Your task to perform on an android device: open a bookmark in the chrome app Image 0: 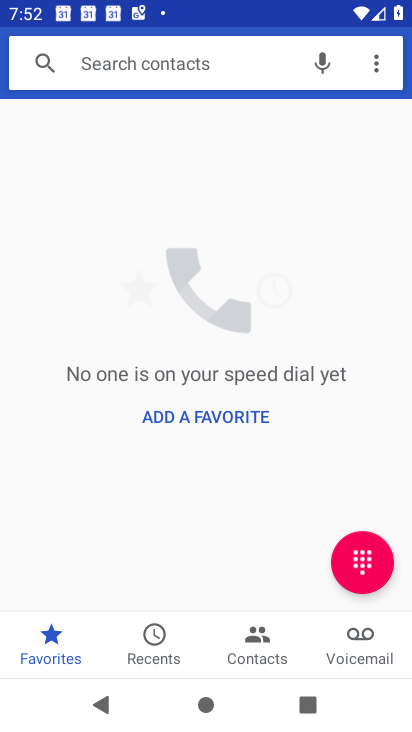
Step 0: press home button
Your task to perform on an android device: open a bookmark in the chrome app Image 1: 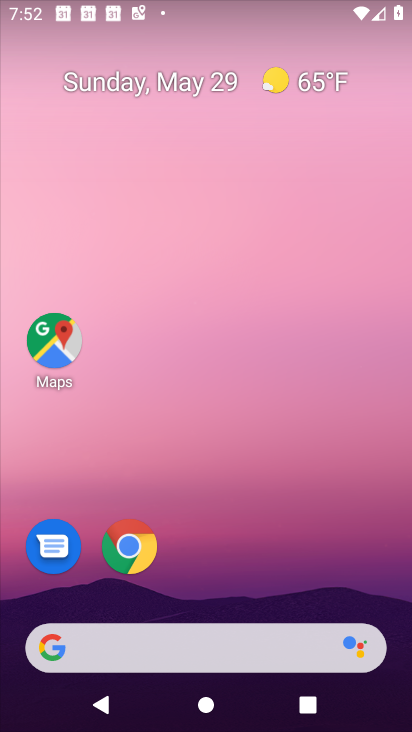
Step 1: drag from (249, 242) to (268, 124)
Your task to perform on an android device: open a bookmark in the chrome app Image 2: 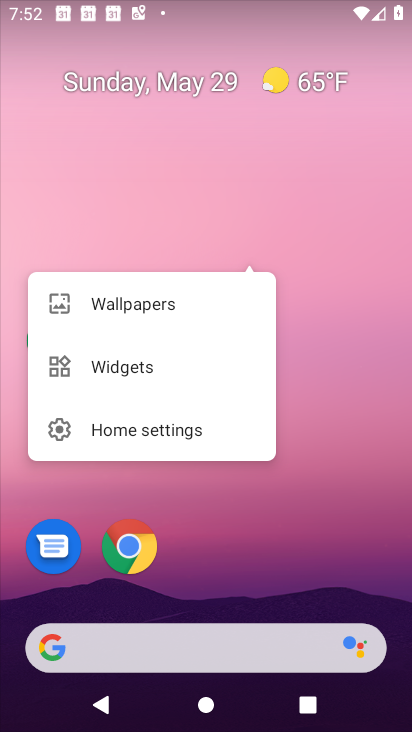
Step 2: click (122, 557)
Your task to perform on an android device: open a bookmark in the chrome app Image 3: 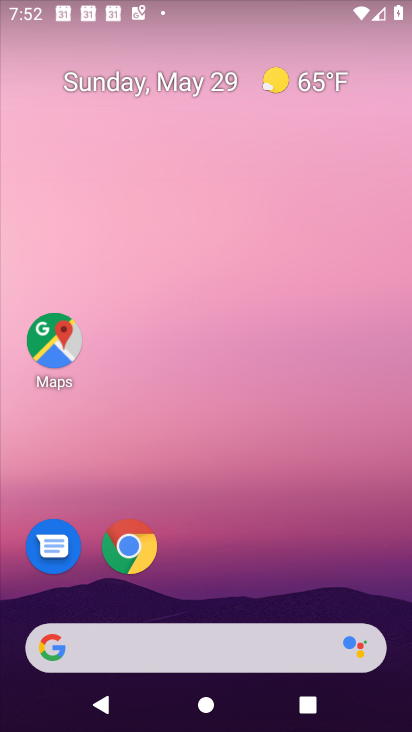
Step 3: click (125, 546)
Your task to perform on an android device: open a bookmark in the chrome app Image 4: 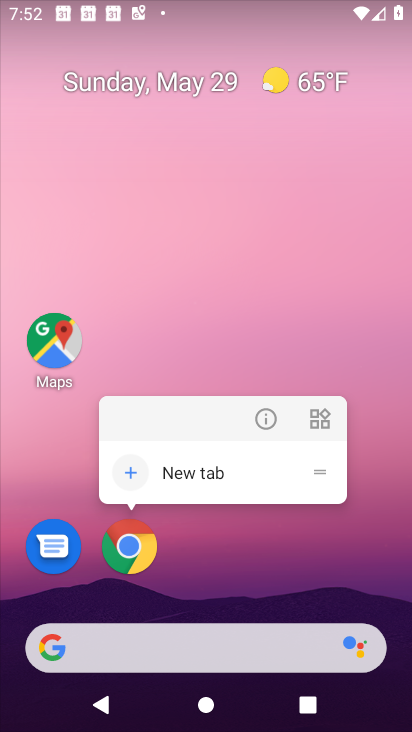
Step 4: click (138, 552)
Your task to perform on an android device: open a bookmark in the chrome app Image 5: 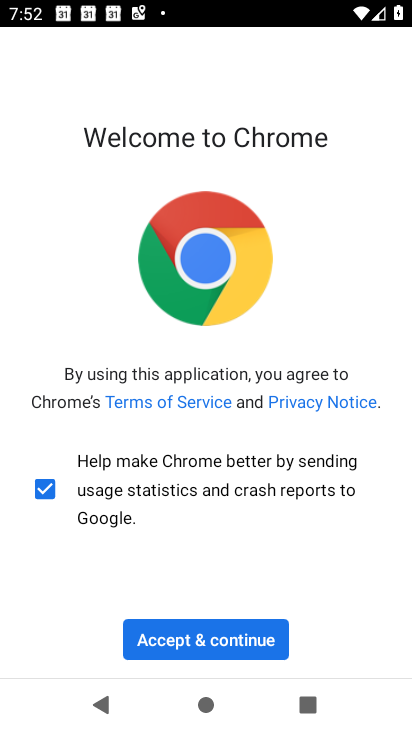
Step 5: click (221, 650)
Your task to perform on an android device: open a bookmark in the chrome app Image 6: 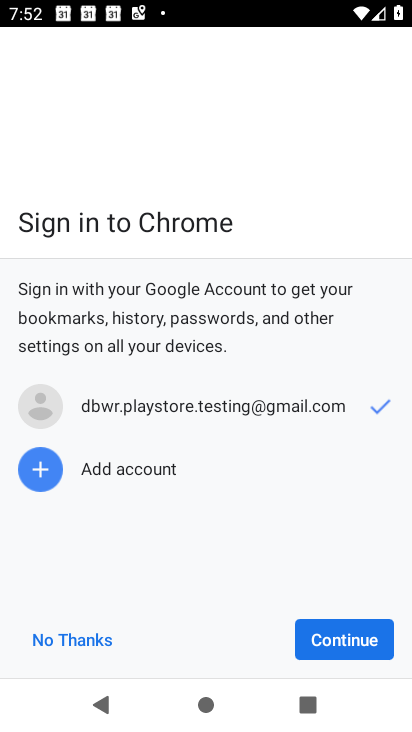
Step 6: click (330, 647)
Your task to perform on an android device: open a bookmark in the chrome app Image 7: 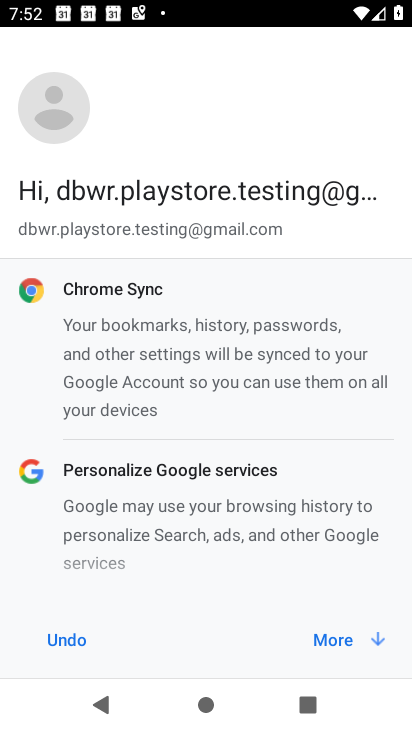
Step 7: click (330, 644)
Your task to perform on an android device: open a bookmark in the chrome app Image 8: 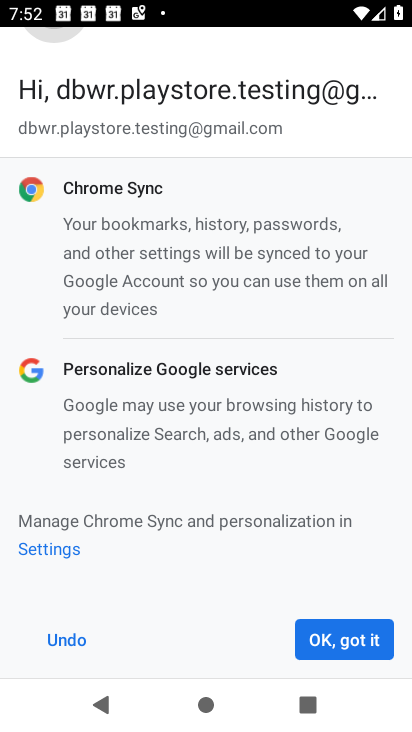
Step 8: click (330, 644)
Your task to perform on an android device: open a bookmark in the chrome app Image 9: 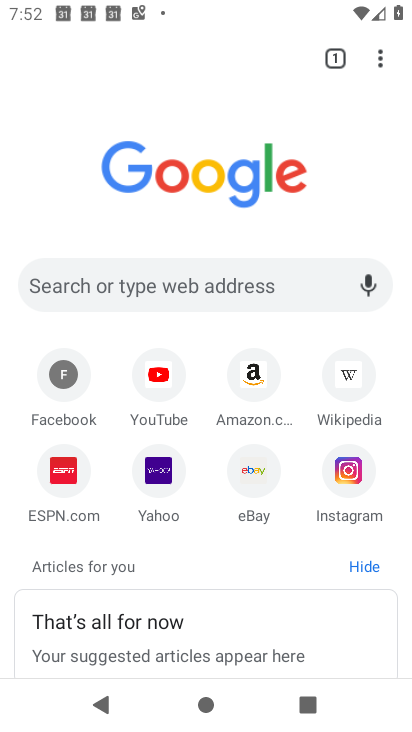
Step 9: click (381, 60)
Your task to perform on an android device: open a bookmark in the chrome app Image 10: 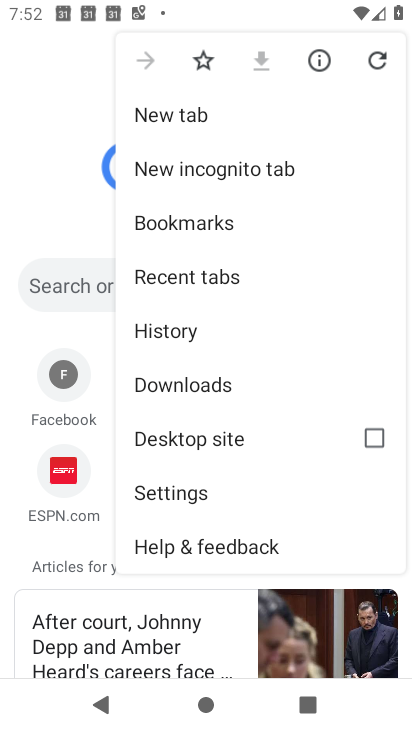
Step 10: click (191, 228)
Your task to perform on an android device: open a bookmark in the chrome app Image 11: 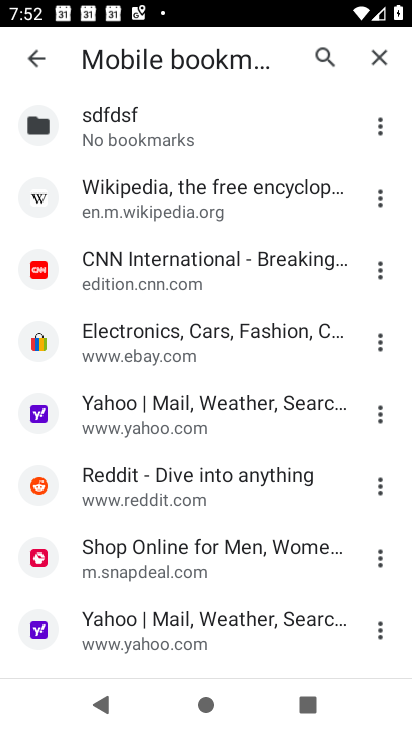
Step 11: task complete